Your task to perform on an android device: turn on location history Image 0: 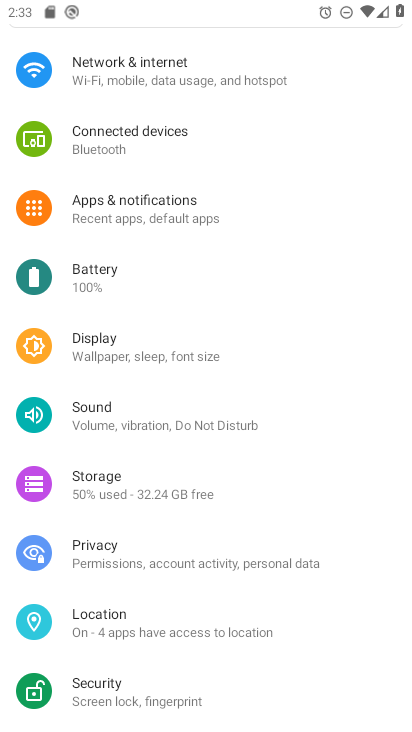
Step 0: click (149, 629)
Your task to perform on an android device: turn on location history Image 1: 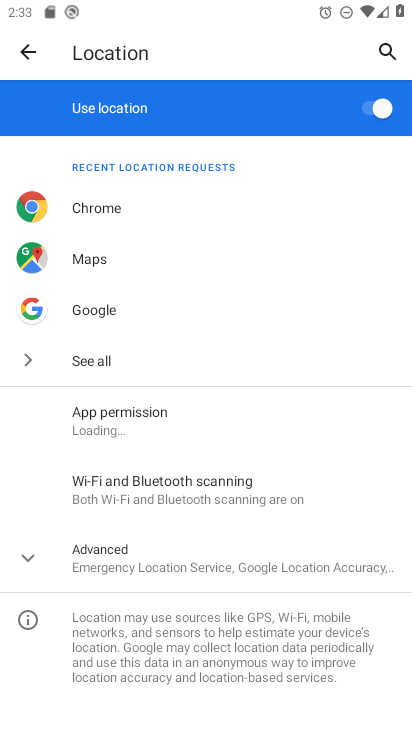
Step 1: click (179, 566)
Your task to perform on an android device: turn on location history Image 2: 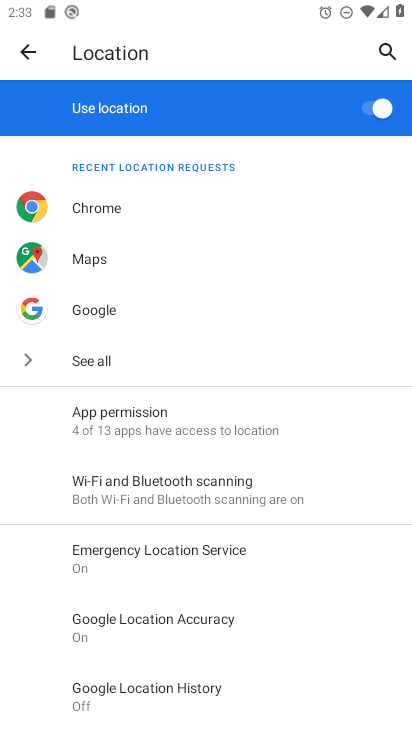
Step 2: click (211, 687)
Your task to perform on an android device: turn on location history Image 3: 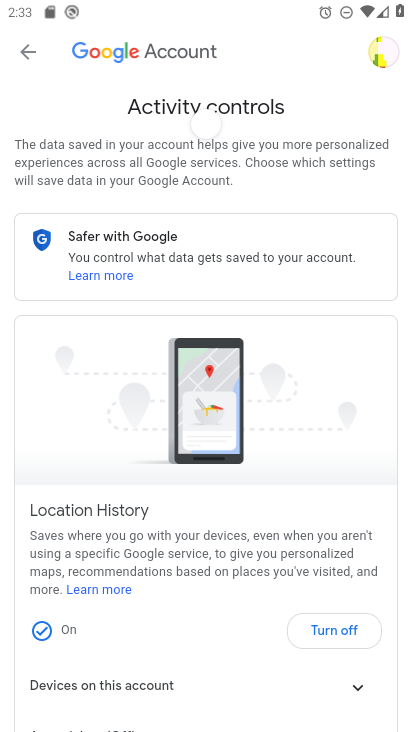
Step 3: task complete